Your task to perform on an android device: turn off data saver in the chrome app Image 0: 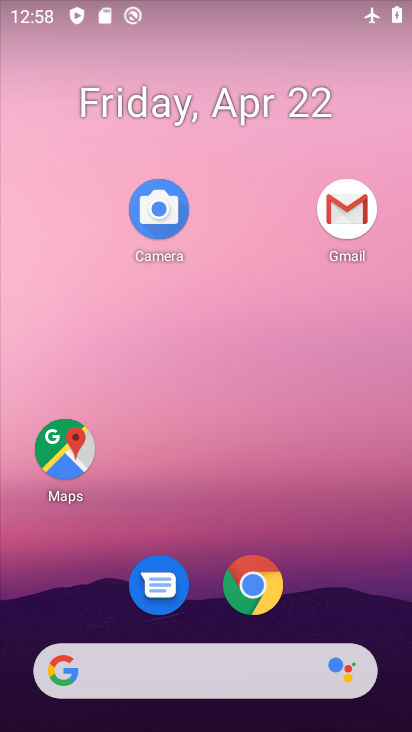
Step 0: click (244, 575)
Your task to perform on an android device: turn off data saver in the chrome app Image 1: 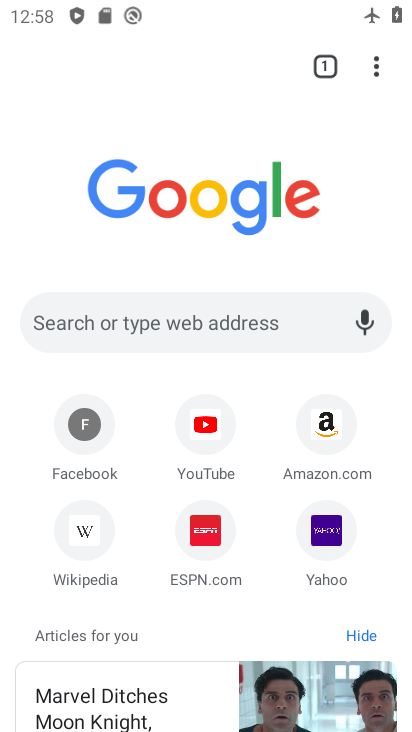
Step 1: drag from (378, 71) to (174, 621)
Your task to perform on an android device: turn off data saver in the chrome app Image 2: 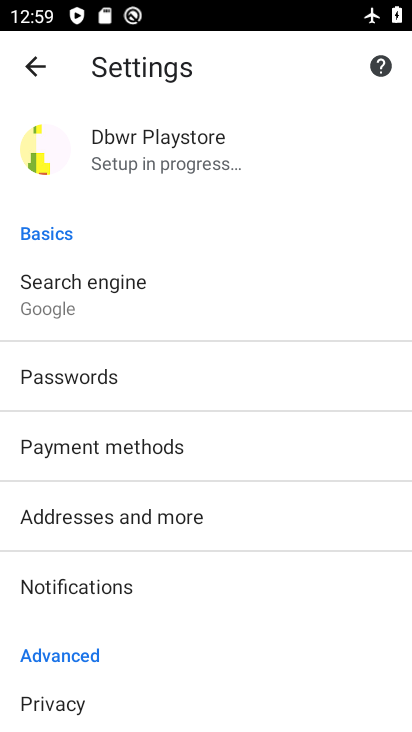
Step 2: drag from (250, 625) to (278, 192)
Your task to perform on an android device: turn off data saver in the chrome app Image 3: 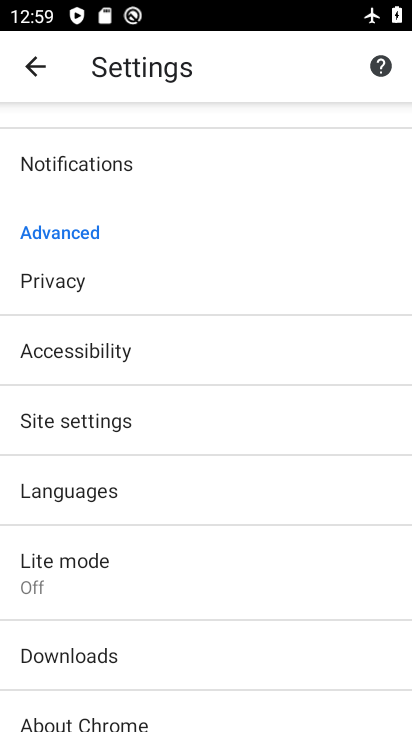
Step 3: click (200, 584)
Your task to perform on an android device: turn off data saver in the chrome app Image 4: 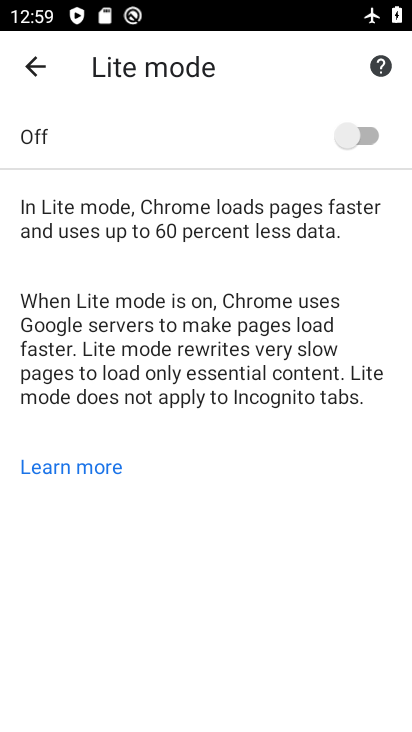
Step 4: task complete